Your task to perform on an android device: Go to Google maps Image 0: 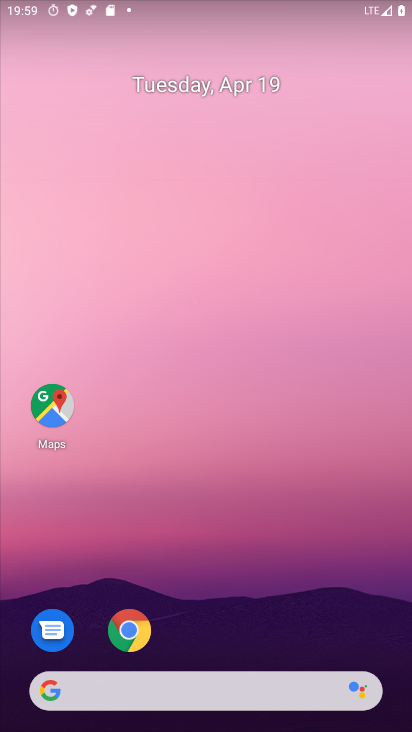
Step 0: click (56, 415)
Your task to perform on an android device: Go to Google maps Image 1: 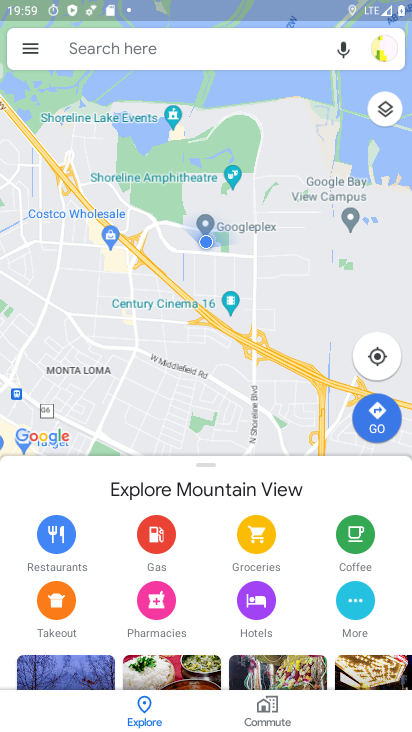
Step 1: task complete